Your task to perform on an android device: Do I have any events this weekend? Image 0: 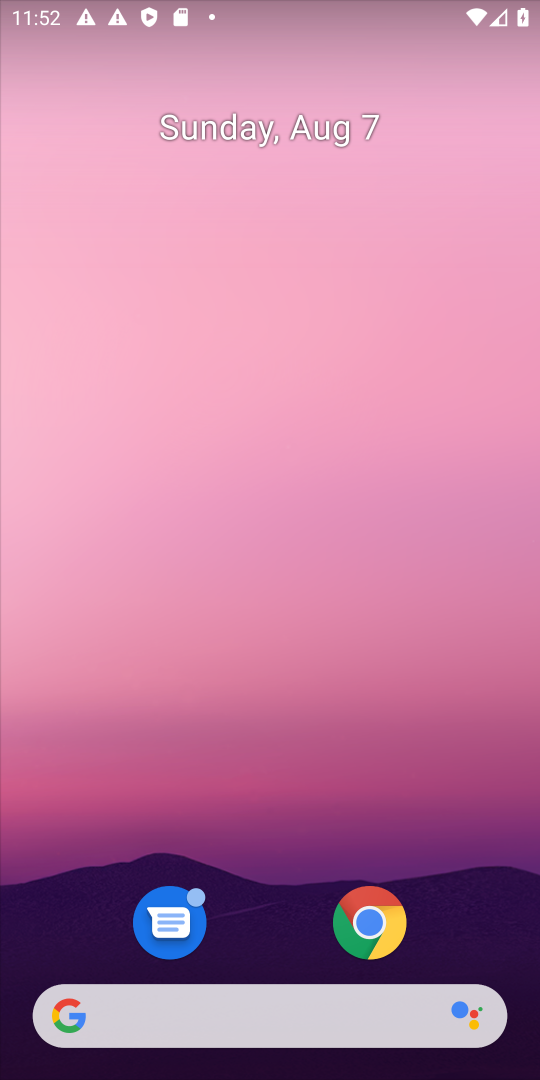
Step 0: drag from (506, 853) to (508, 317)
Your task to perform on an android device: Do I have any events this weekend? Image 1: 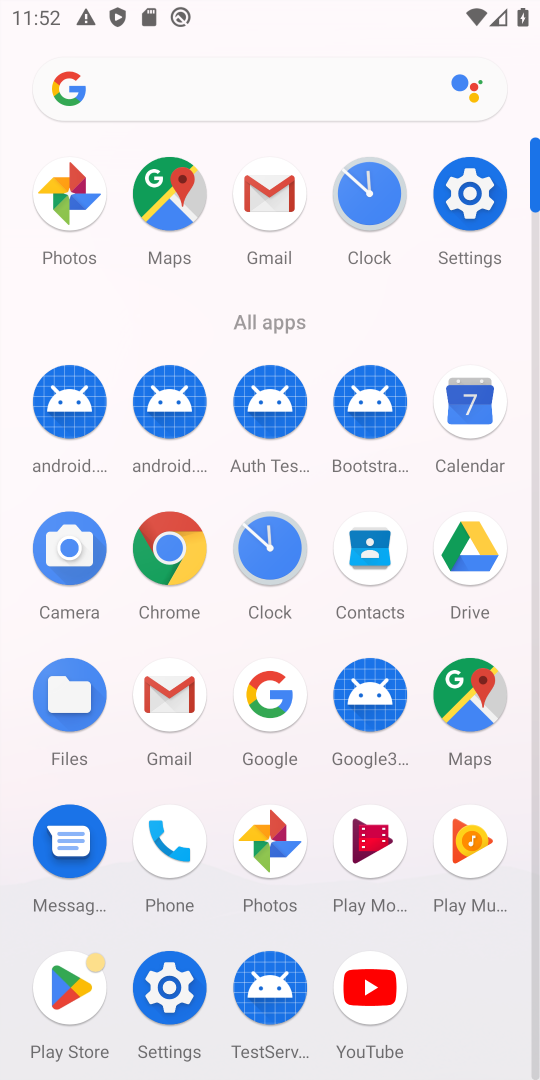
Step 1: click (452, 413)
Your task to perform on an android device: Do I have any events this weekend? Image 2: 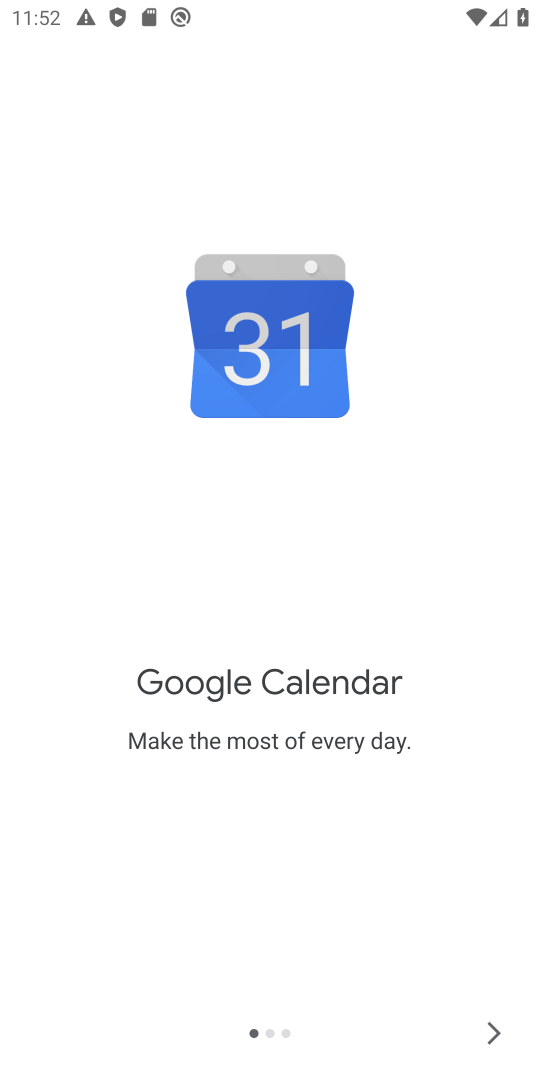
Step 2: click (497, 1027)
Your task to perform on an android device: Do I have any events this weekend? Image 3: 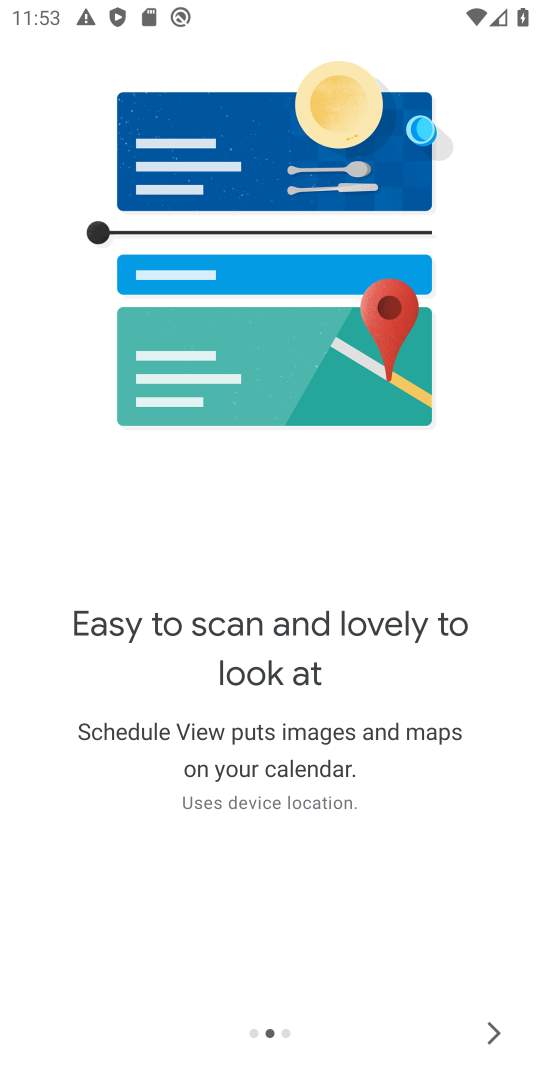
Step 3: click (497, 1027)
Your task to perform on an android device: Do I have any events this weekend? Image 4: 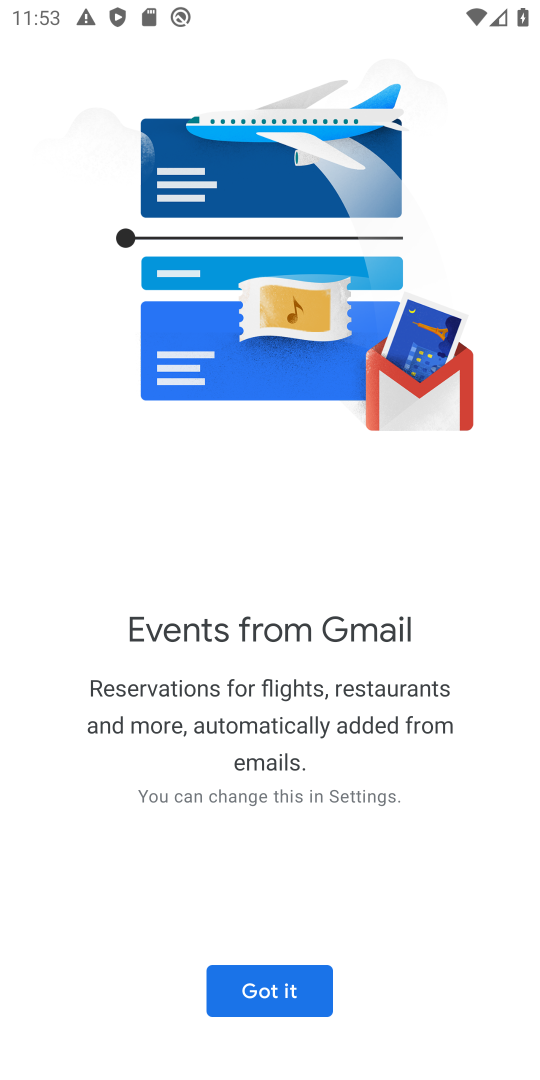
Step 4: click (290, 986)
Your task to perform on an android device: Do I have any events this weekend? Image 5: 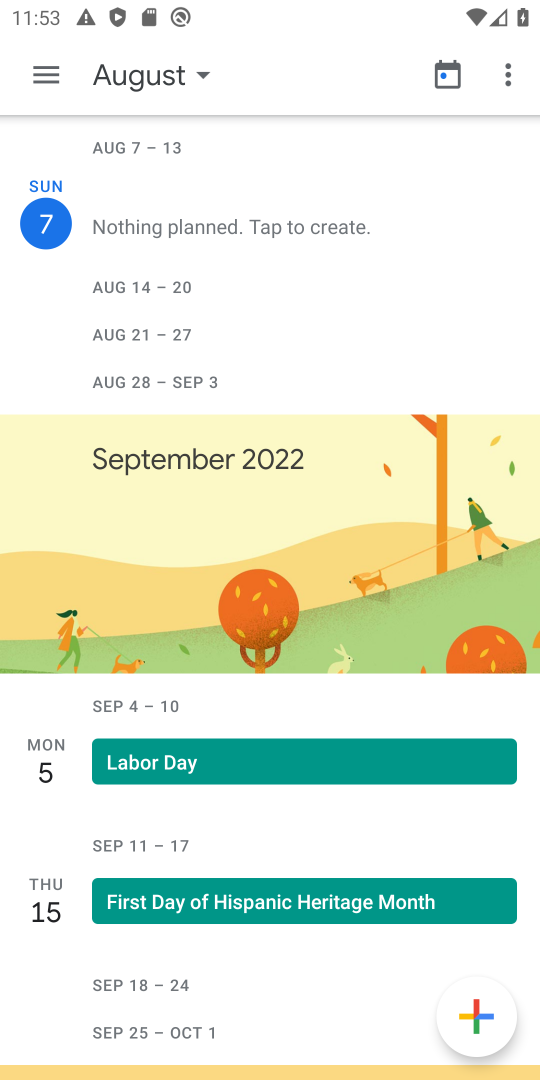
Step 5: click (56, 85)
Your task to perform on an android device: Do I have any events this weekend? Image 6: 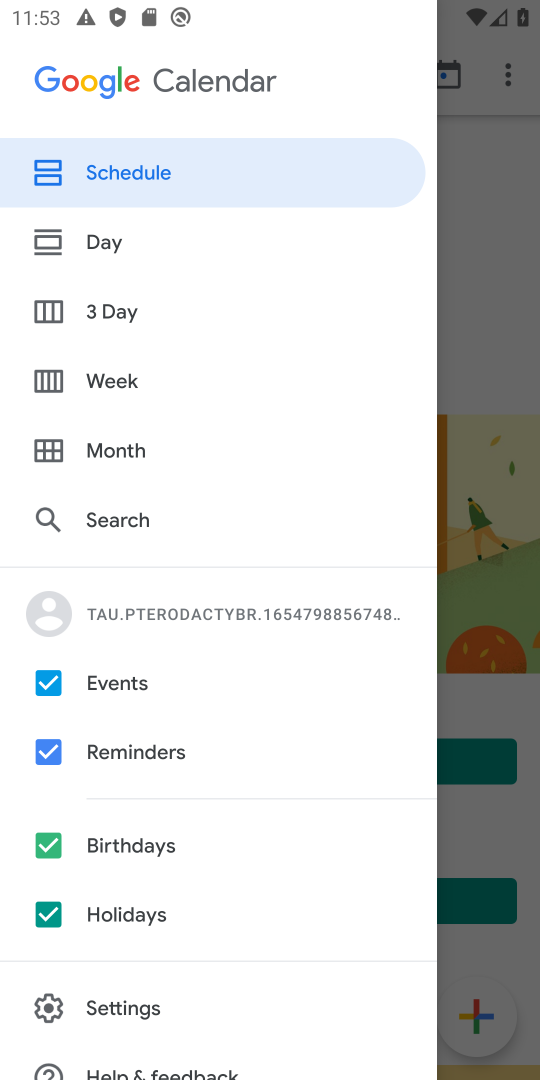
Step 6: click (190, 297)
Your task to perform on an android device: Do I have any events this weekend? Image 7: 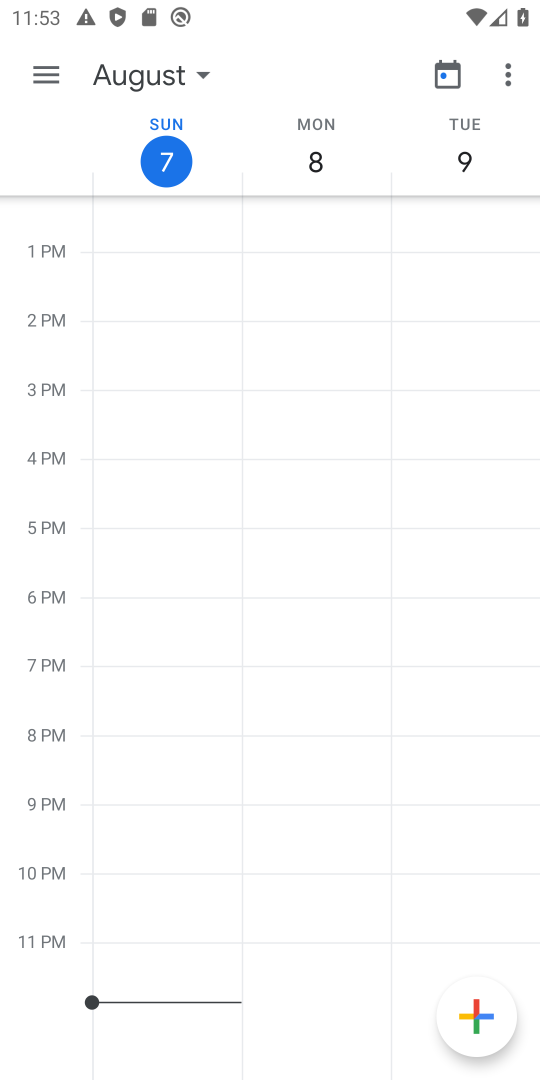
Step 7: click (170, 75)
Your task to perform on an android device: Do I have any events this weekend? Image 8: 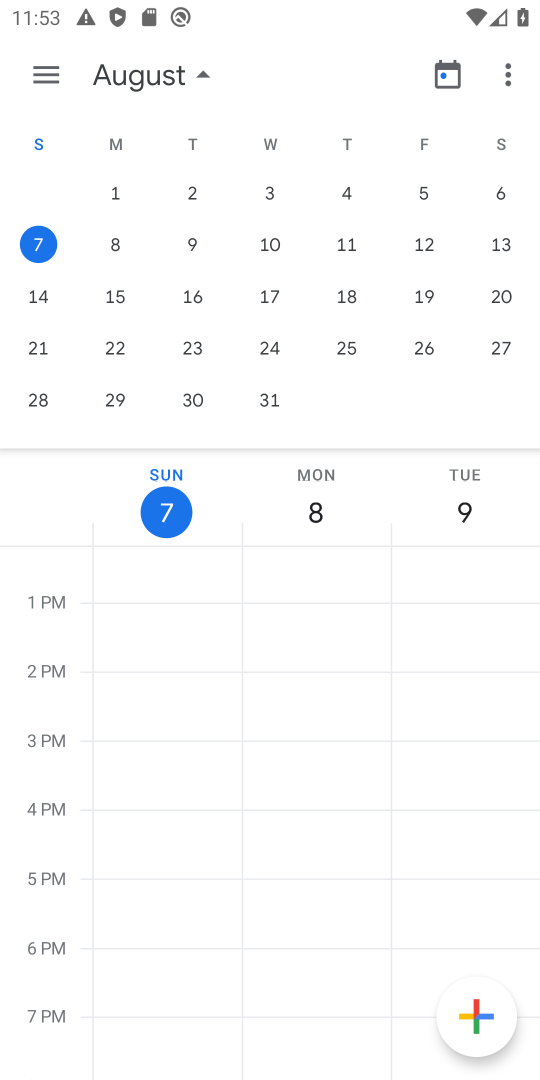
Step 8: click (407, 247)
Your task to perform on an android device: Do I have any events this weekend? Image 9: 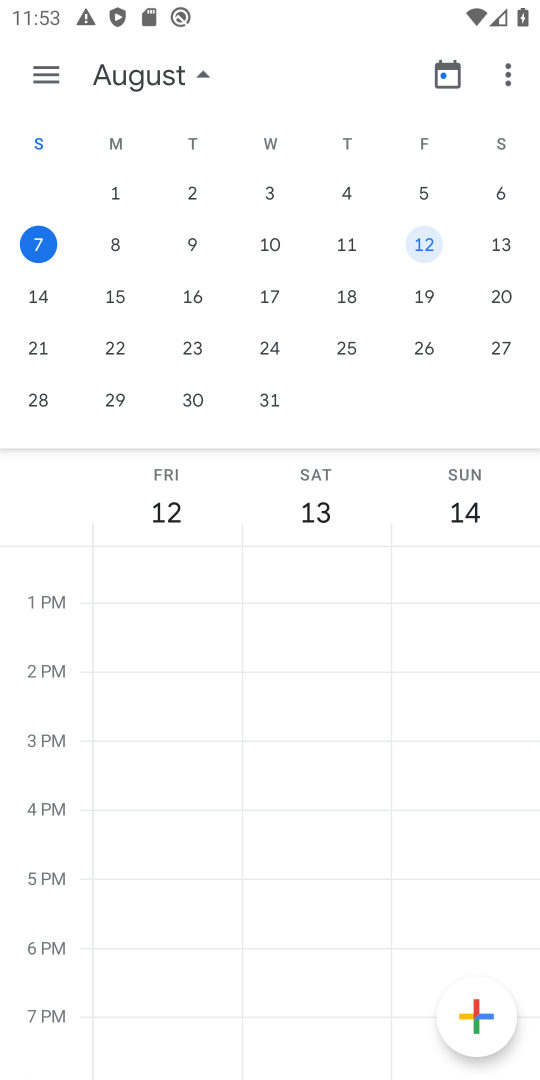
Step 9: task complete